Your task to perform on an android device: Open display settings Image 0: 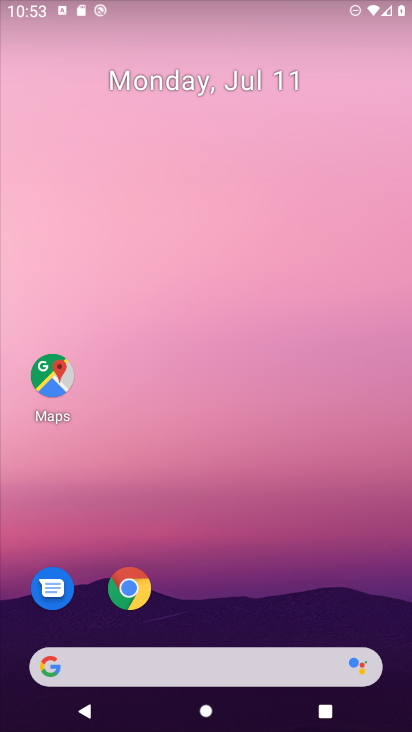
Step 0: drag from (391, 649) to (233, 26)
Your task to perform on an android device: Open display settings Image 1: 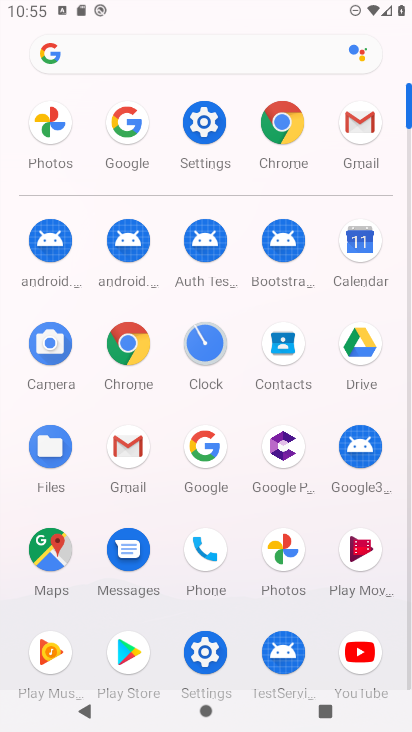
Step 1: click (198, 656)
Your task to perform on an android device: Open display settings Image 2: 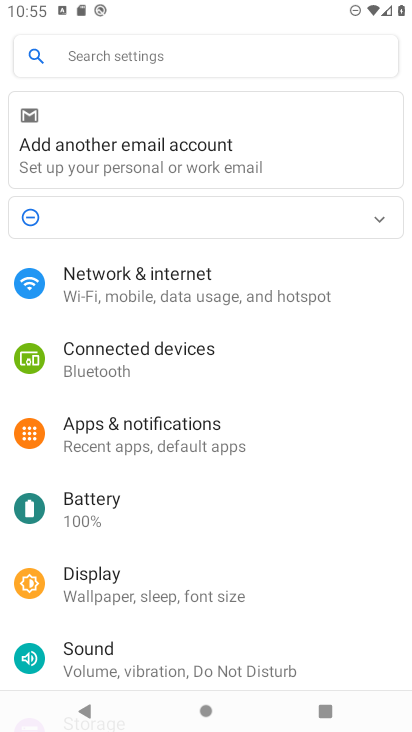
Step 2: click (110, 582)
Your task to perform on an android device: Open display settings Image 3: 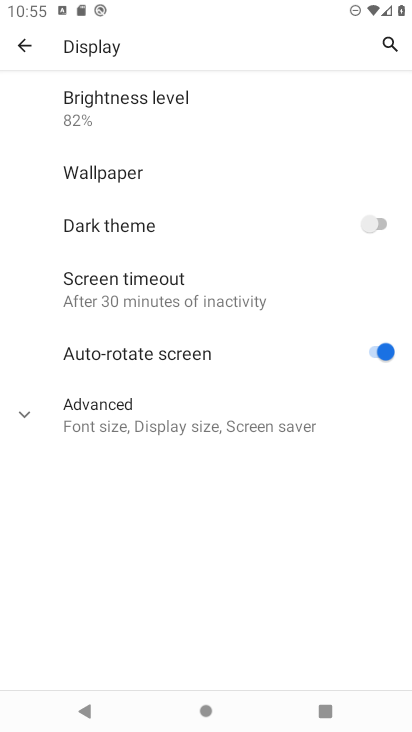
Step 3: task complete